Your task to perform on an android device: What is the news today? Image 0: 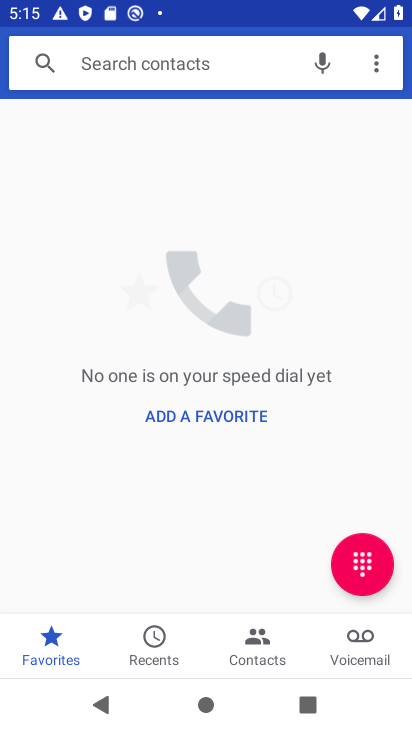
Step 0: press back button
Your task to perform on an android device: What is the news today? Image 1: 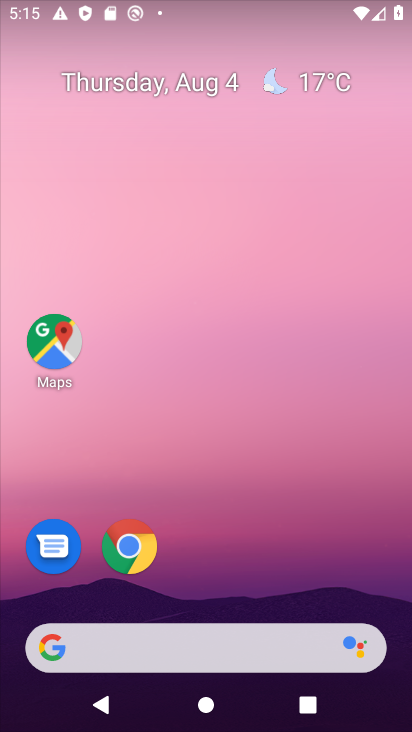
Step 1: press home button
Your task to perform on an android device: What is the news today? Image 2: 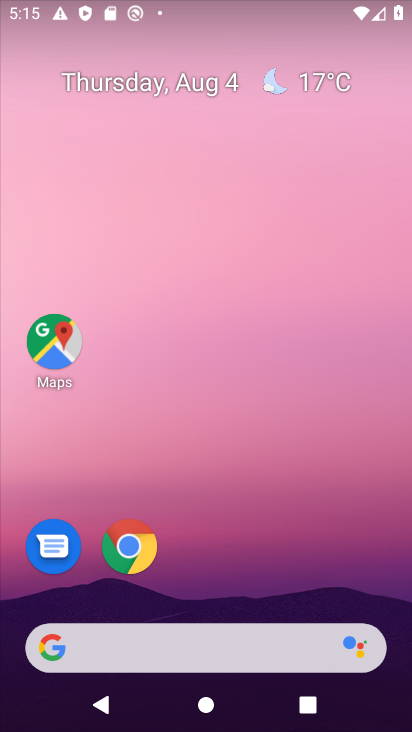
Step 2: drag from (183, 536) to (212, 103)
Your task to perform on an android device: What is the news today? Image 3: 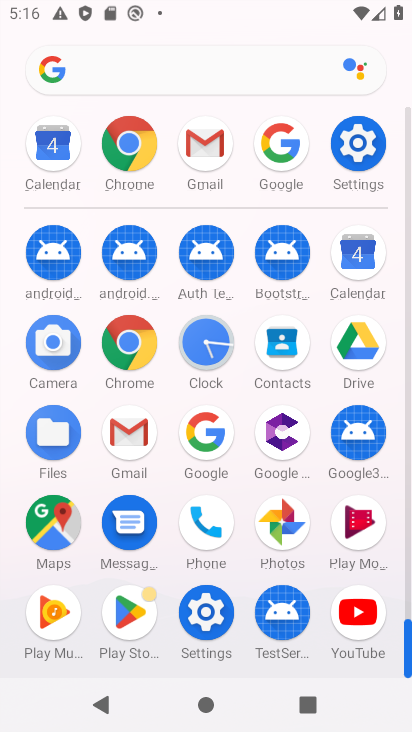
Step 3: click (216, 435)
Your task to perform on an android device: What is the news today? Image 4: 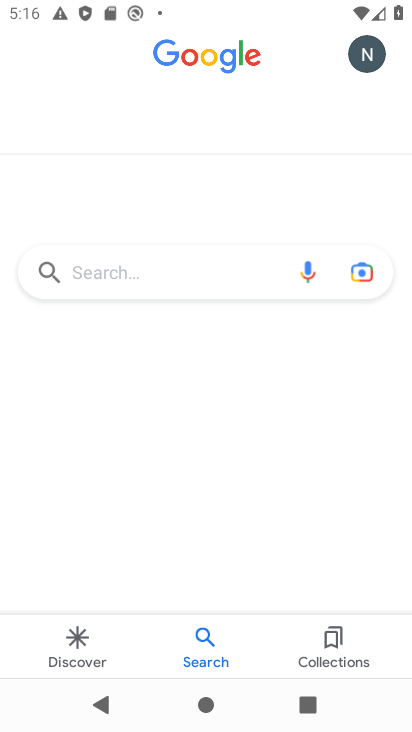
Step 4: click (140, 282)
Your task to perform on an android device: What is the news today? Image 5: 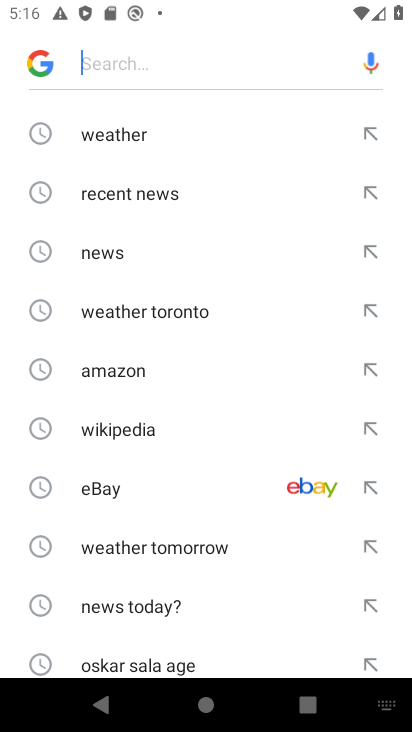
Step 5: click (164, 612)
Your task to perform on an android device: What is the news today? Image 6: 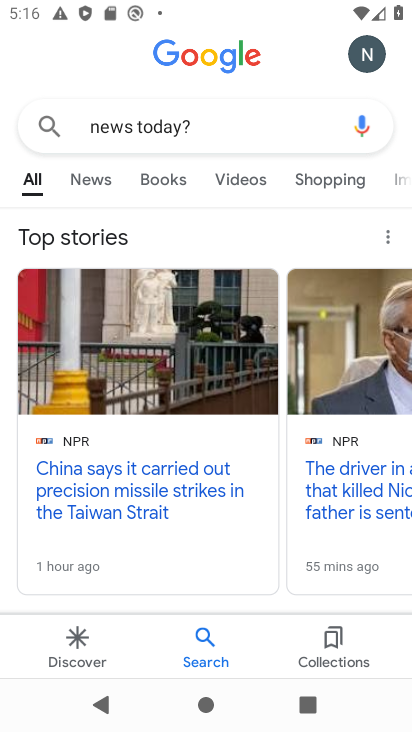
Step 6: task complete